Your task to perform on an android device: Go to Google maps Image 0: 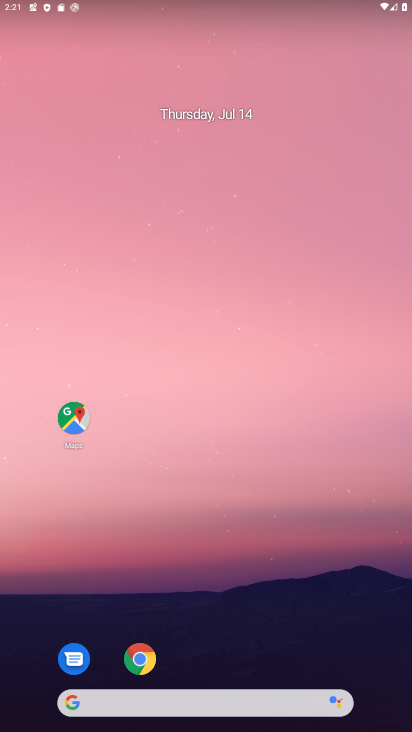
Step 0: press home button
Your task to perform on an android device: Go to Google maps Image 1: 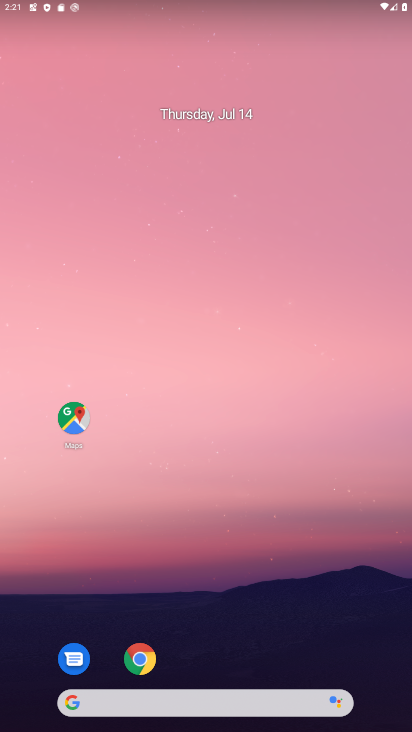
Step 1: drag from (269, 647) to (274, 88)
Your task to perform on an android device: Go to Google maps Image 2: 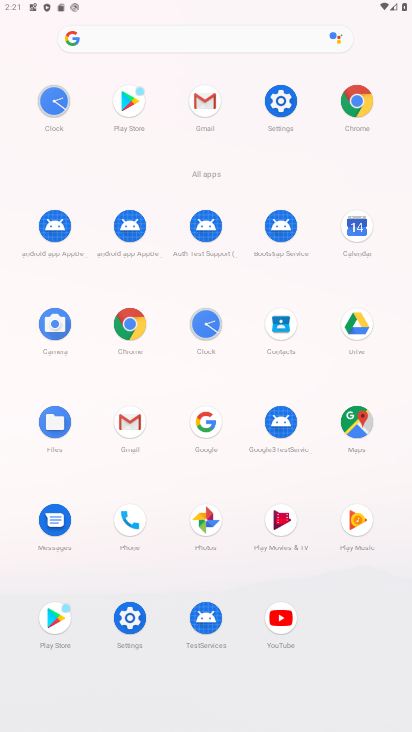
Step 2: click (358, 429)
Your task to perform on an android device: Go to Google maps Image 3: 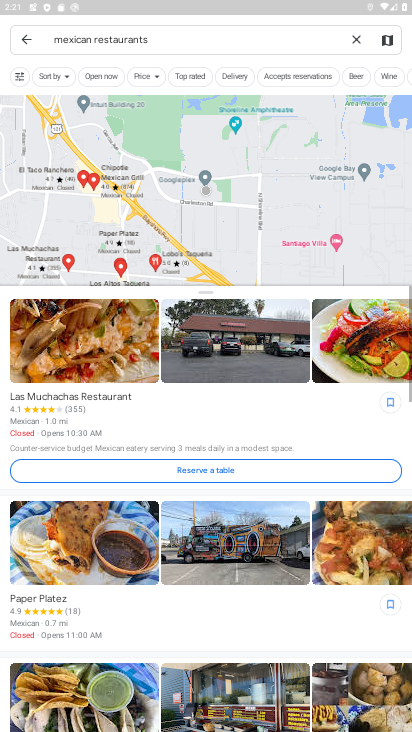
Step 3: task complete